Your task to perform on an android device: open app "Lyft - Rideshare, Bikes, Scooters & Transit" (install if not already installed) Image 0: 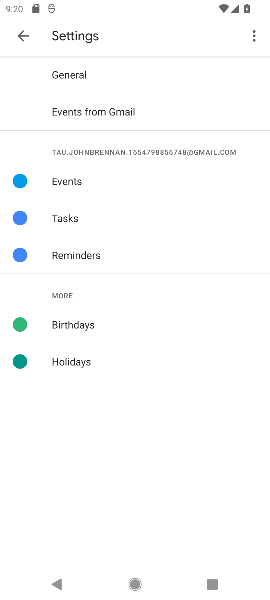
Step 0: press home button
Your task to perform on an android device: open app "Lyft - Rideshare, Bikes, Scooters & Transit" (install if not already installed) Image 1: 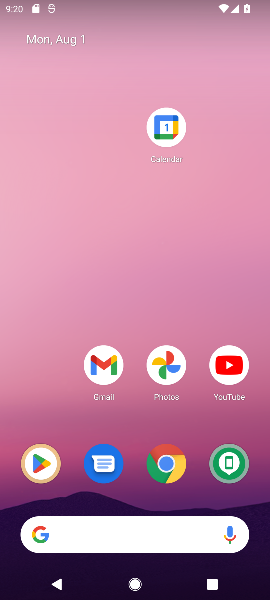
Step 1: task complete